Your task to perform on an android device: Go to Google maps Image 0: 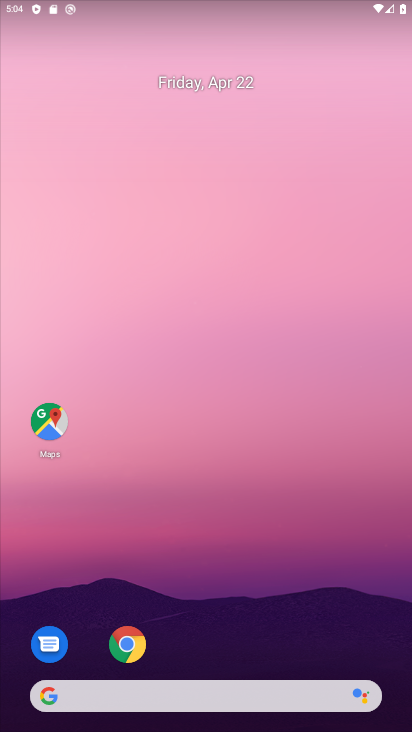
Step 0: click (48, 423)
Your task to perform on an android device: Go to Google maps Image 1: 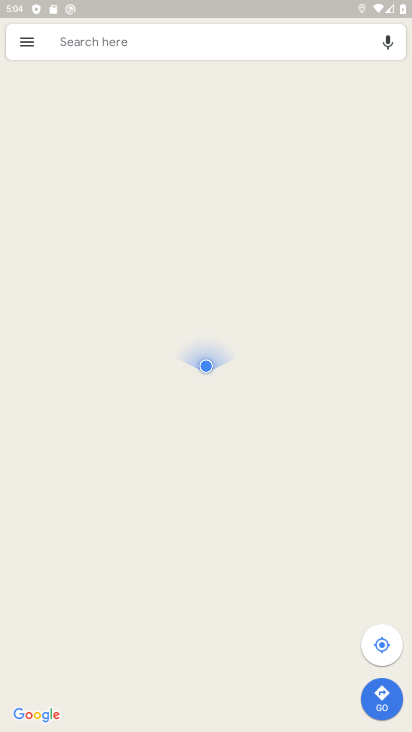
Step 1: task complete